Your task to perform on an android device: Search for pizza restaurants on Maps Image 0: 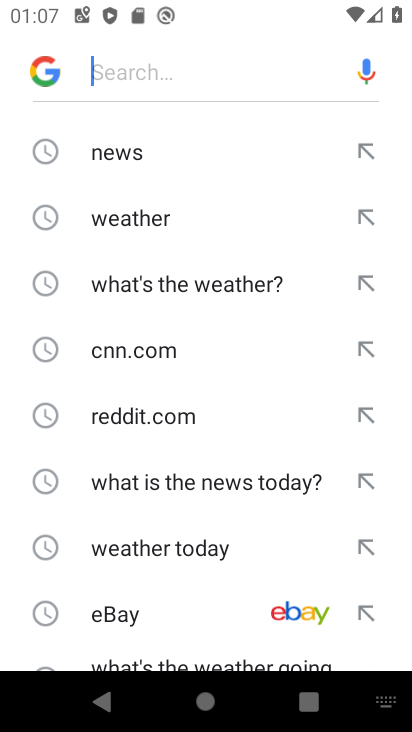
Step 0: press home button
Your task to perform on an android device: Search for pizza restaurants on Maps Image 1: 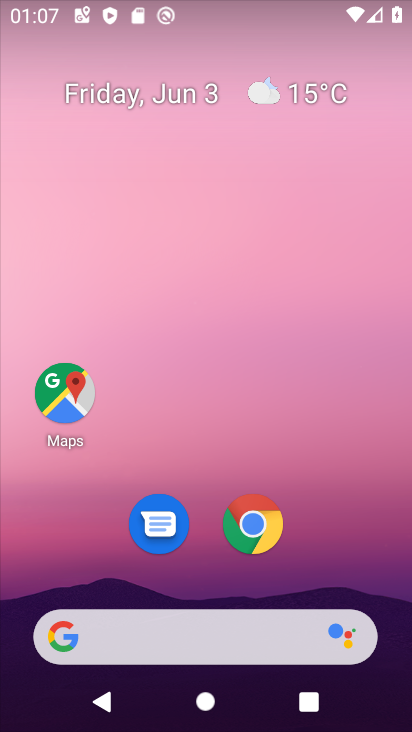
Step 1: click (57, 393)
Your task to perform on an android device: Search for pizza restaurants on Maps Image 2: 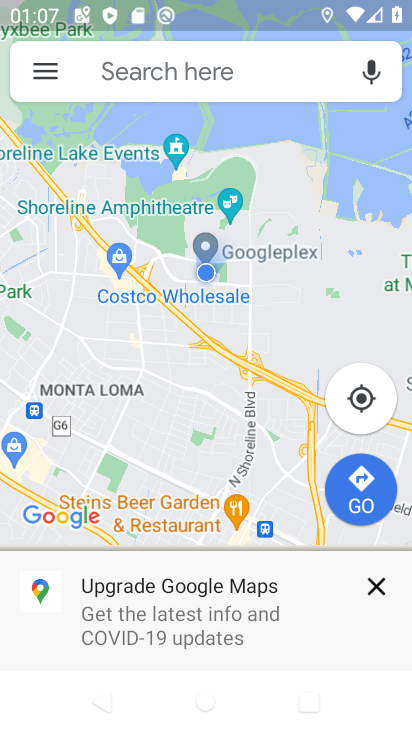
Step 2: click (168, 70)
Your task to perform on an android device: Search for pizza restaurants on Maps Image 3: 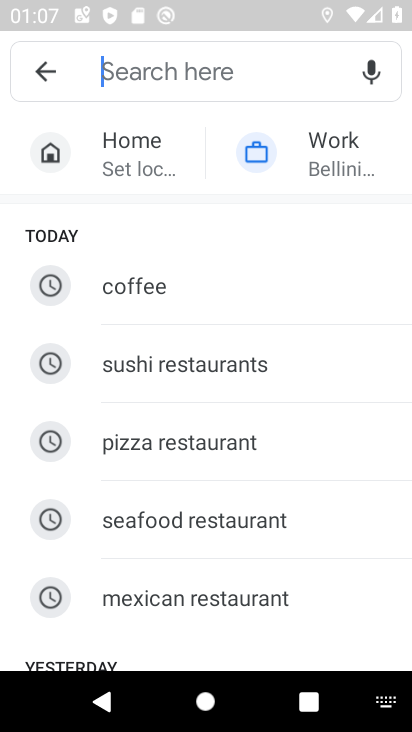
Step 3: click (186, 435)
Your task to perform on an android device: Search for pizza restaurants on Maps Image 4: 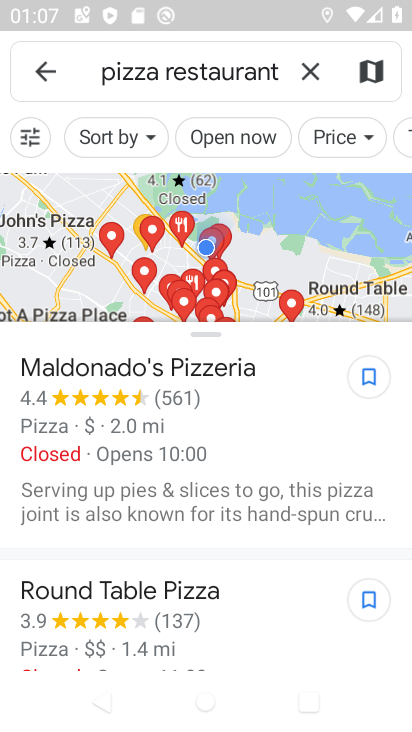
Step 4: task complete